Your task to perform on an android device: toggle wifi Image 0: 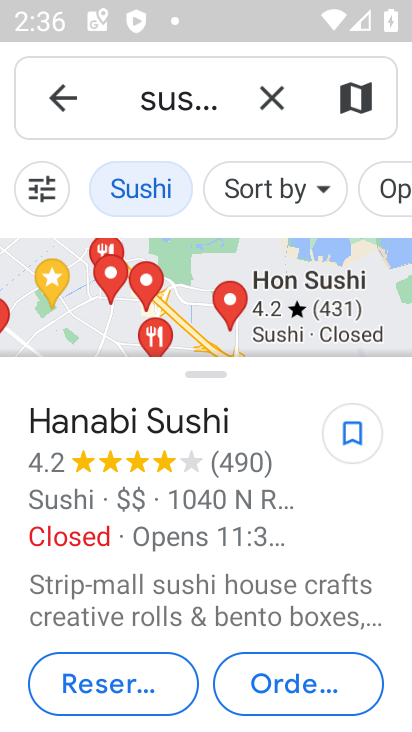
Step 0: press back button
Your task to perform on an android device: toggle wifi Image 1: 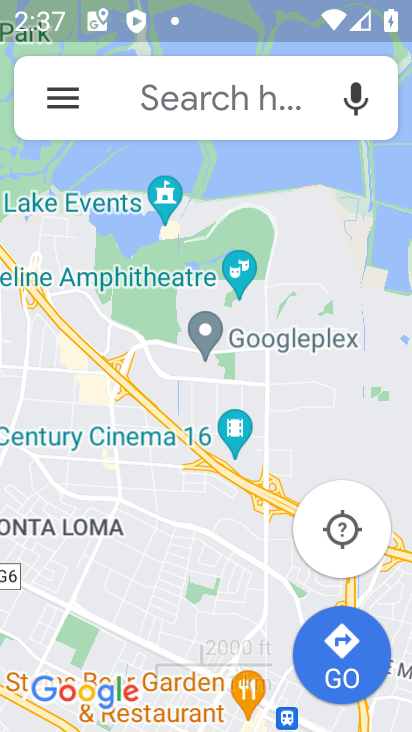
Step 1: press home button
Your task to perform on an android device: toggle wifi Image 2: 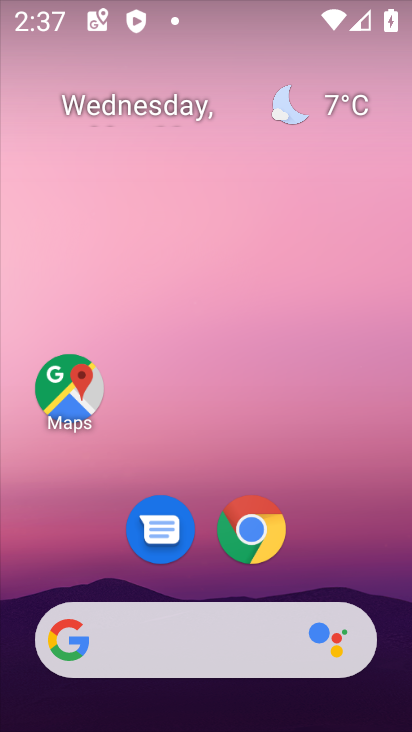
Step 2: drag from (282, 26) to (259, 481)
Your task to perform on an android device: toggle wifi Image 3: 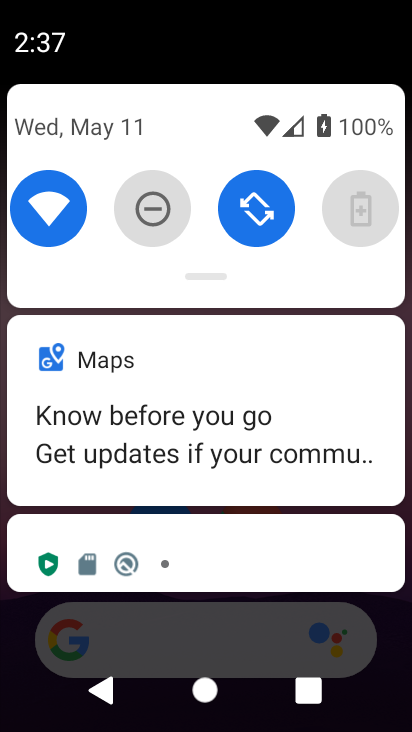
Step 3: click (46, 196)
Your task to perform on an android device: toggle wifi Image 4: 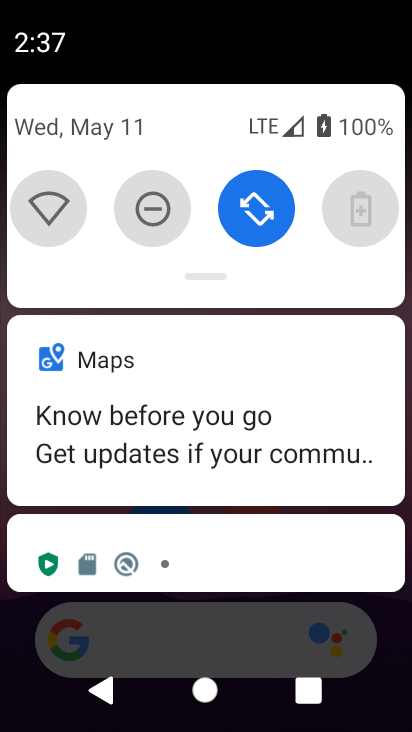
Step 4: task complete